Your task to perform on an android device: snooze an email in the gmail app Image 0: 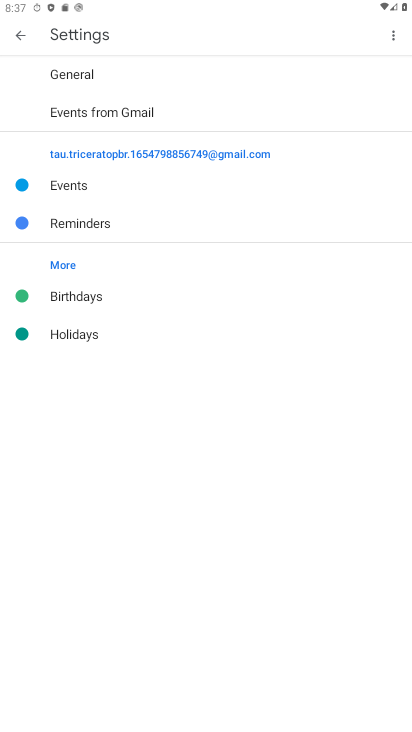
Step 0: press home button
Your task to perform on an android device: snooze an email in the gmail app Image 1: 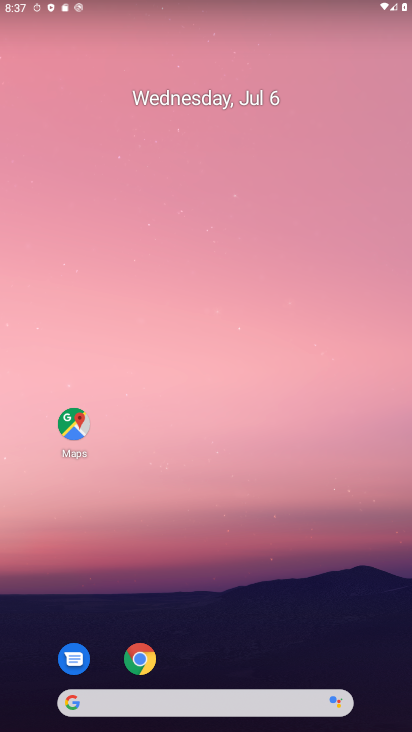
Step 1: drag from (359, 626) to (376, 142)
Your task to perform on an android device: snooze an email in the gmail app Image 2: 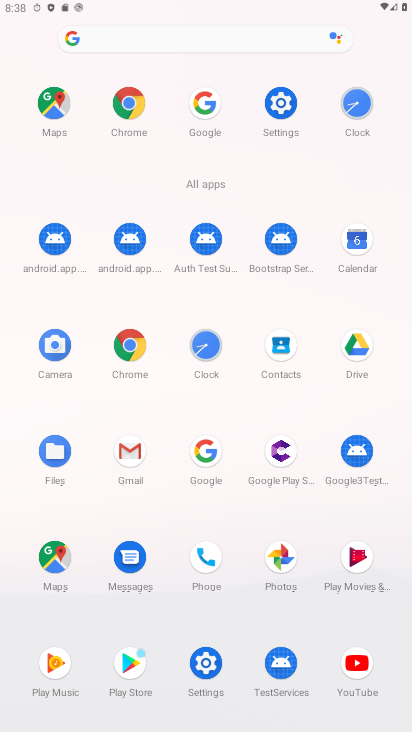
Step 2: click (131, 456)
Your task to perform on an android device: snooze an email in the gmail app Image 3: 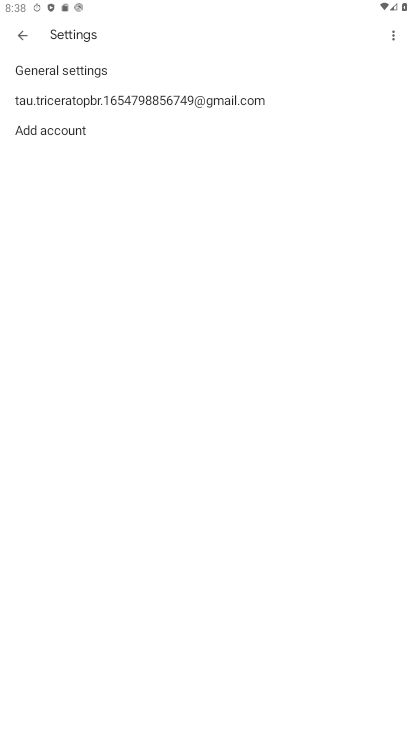
Step 3: press back button
Your task to perform on an android device: snooze an email in the gmail app Image 4: 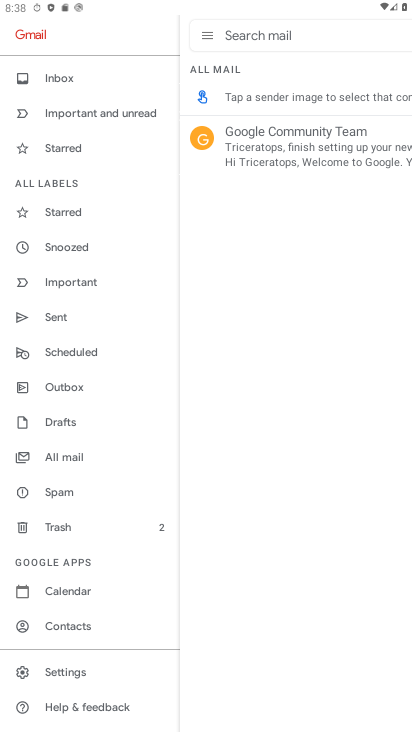
Step 4: click (88, 253)
Your task to perform on an android device: snooze an email in the gmail app Image 5: 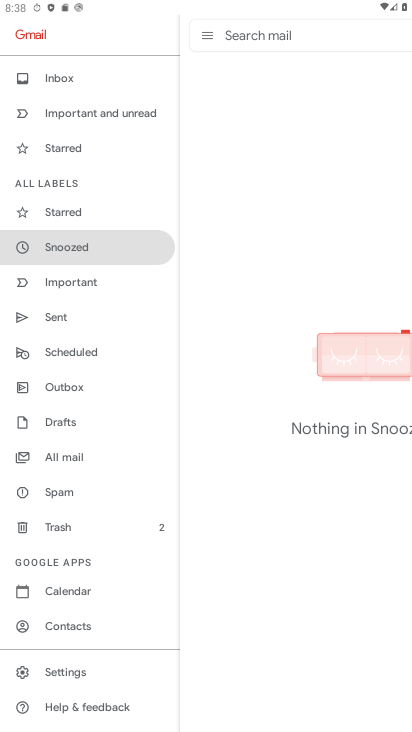
Step 5: task complete